Your task to perform on an android device: Open Youtube and go to the subscriptions tab Image 0: 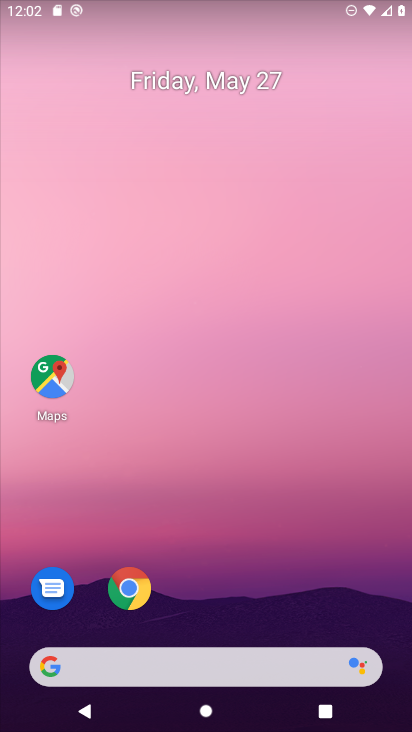
Step 0: drag from (389, 626) to (285, 21)
Your task to perform on an android device: Open Youtube and go to the subscriptions tab Image 1: 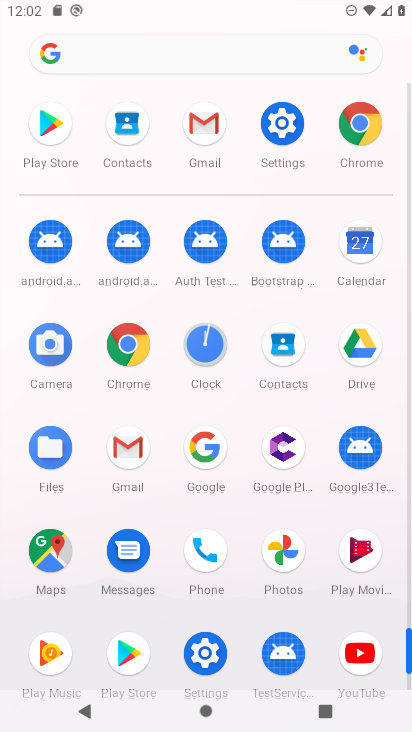
Step 1: click (411, 677)
Your task to perform on an android device: Open Youtube and go to the subscriptions tab Image 2: 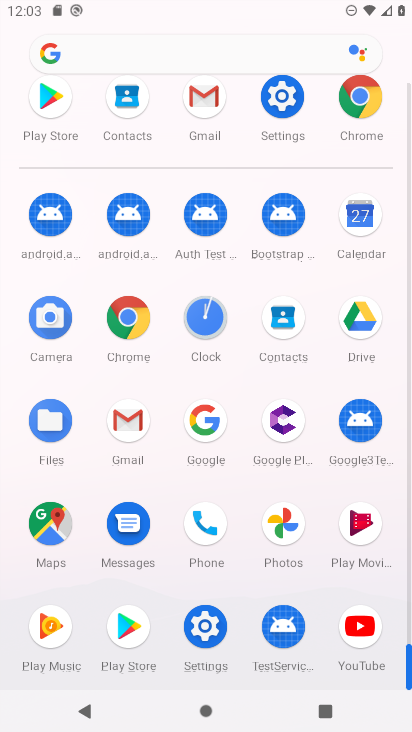
Step 2: click (361, 624)
Your task to perform on an android device: Open Youtube and go to the subscriptions tab Image 3: 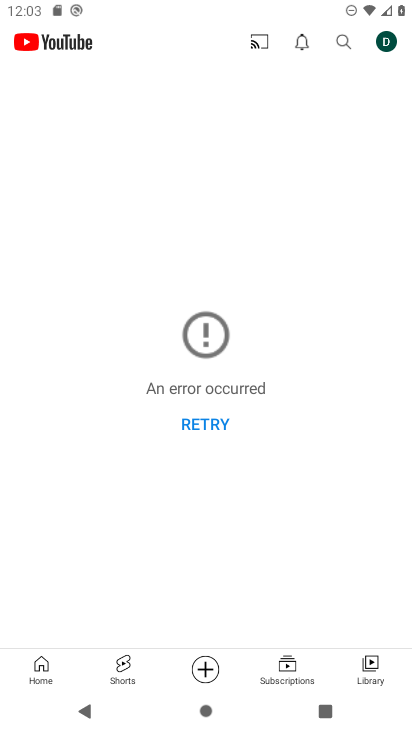
Step 3: click (289, 658)
Your task to perform on an android device: Open Youtube and go to the subscriptions tab Image 4: 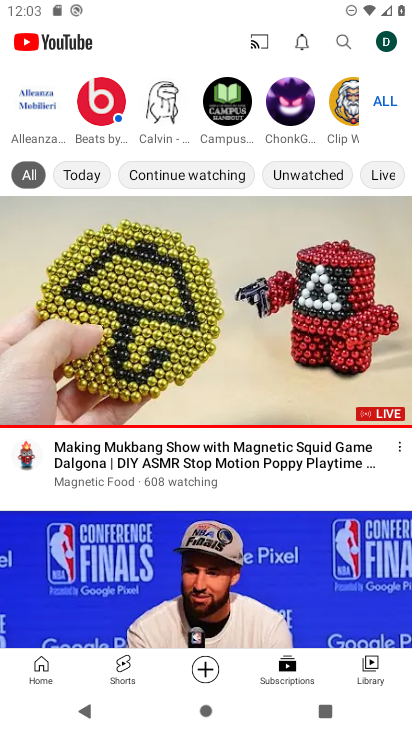
Step 4: task complete